Your task to perform on an android device: check out phone information Image 0: 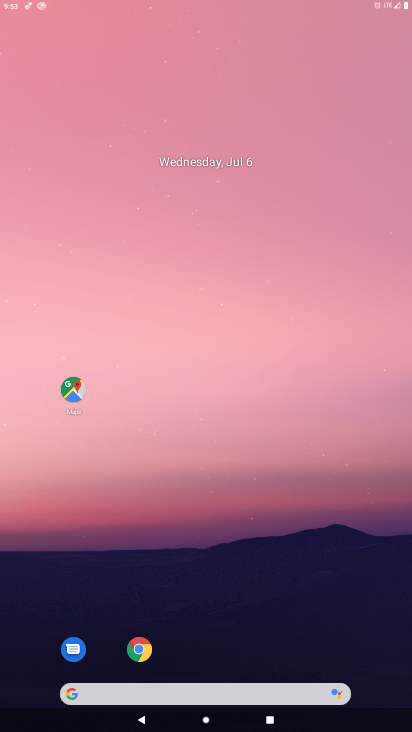
Step 0: press home button
Your task to perform on an android device: check out phone information Image 1: 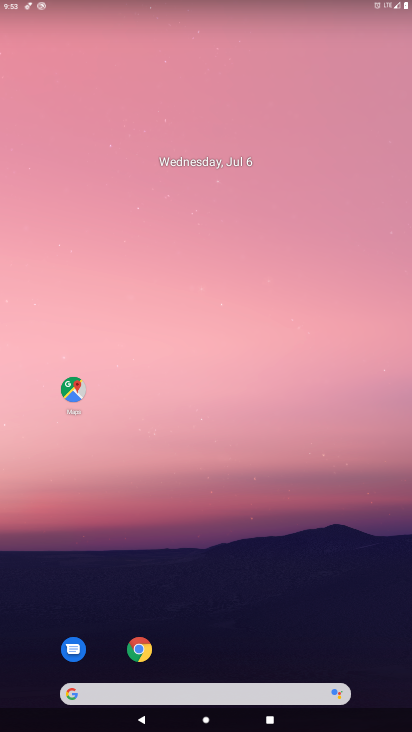
Step 1: drag from (205, 648) to (230, 183)
Your task to perform on an android device: check out phone information Image 2: 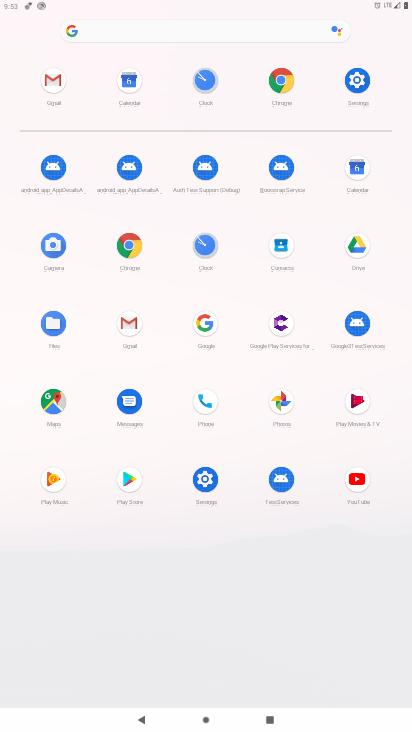
Step 2: click (356, 75)
Your task to perform on an android device: check out phone information Image 3: 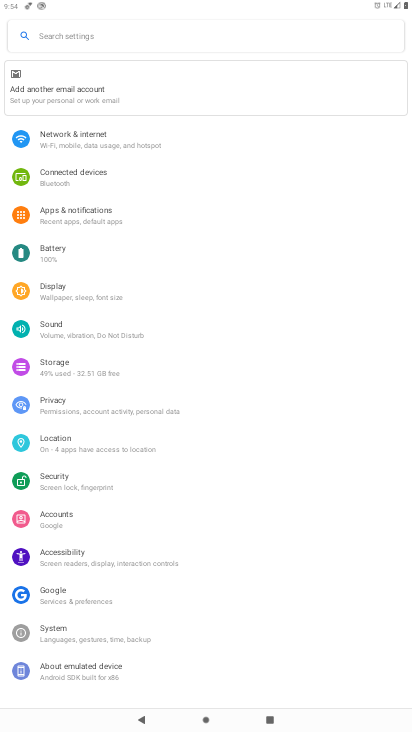
Step 3: click (114, 672)
Your task to perform on an android device: check out phone information Image 4: 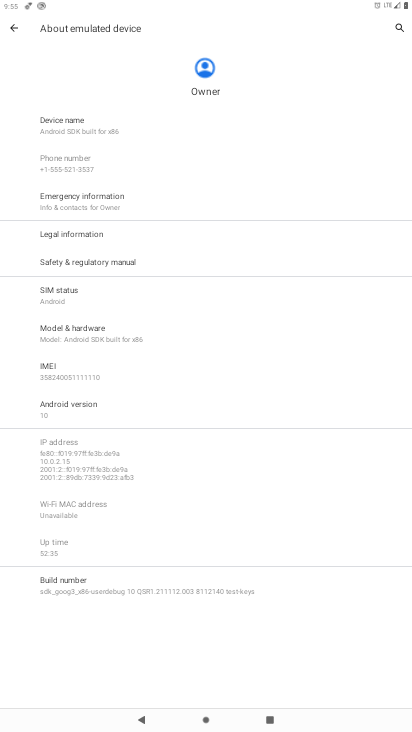
Step 4: task complete